Your task to perform on an android device: allow cookies in the chrome app Image 0: 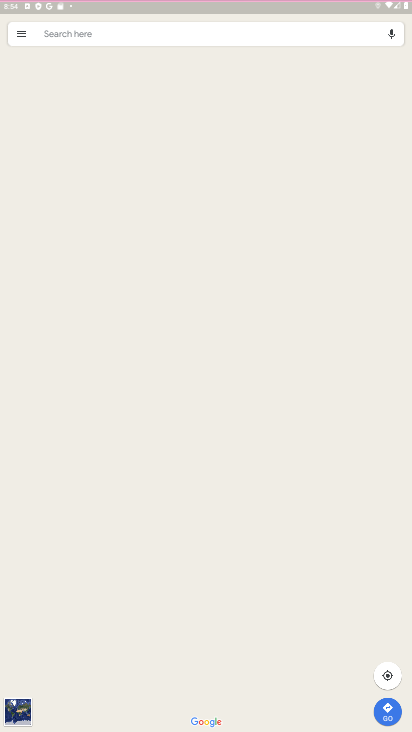
Step 0: press home button
Your task to perform on an android device: allow cookies in the chrome app Image 1: 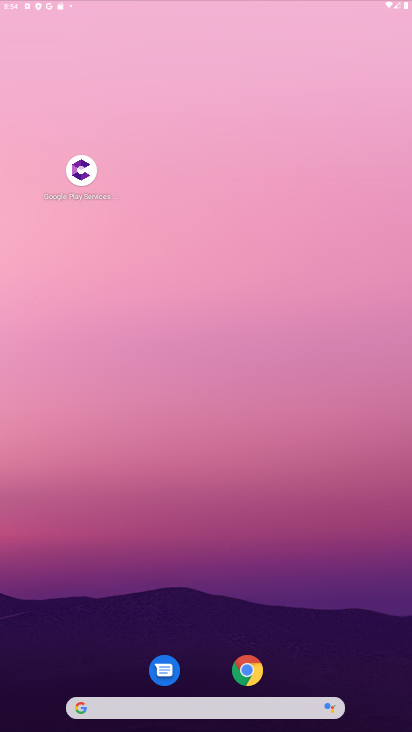
Step 1: press home button
Your task to perform on an android device: allow cookies in the chrome app Image 2: 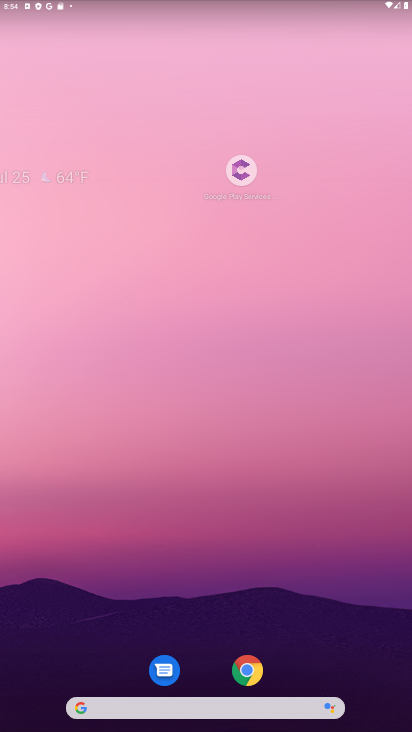
Step 2: drag from (340, 704) to (203, 2)
Your task to perform on an android device: allow cookies in the chrome app Image 3: 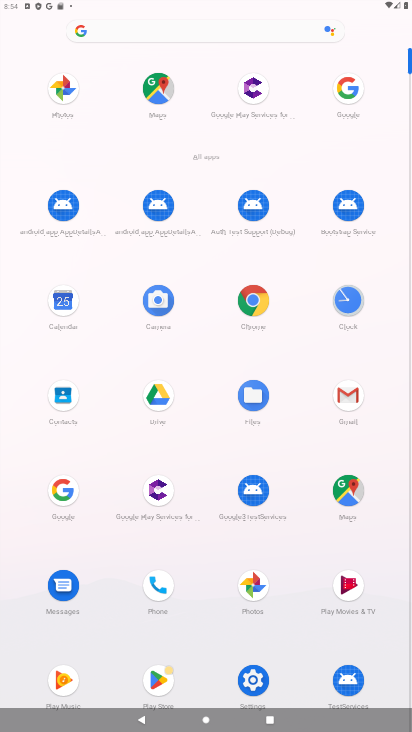
Step 3: click (244, 308)
Your task to perform on an android device: allow cookies in the chrome app Image 4: 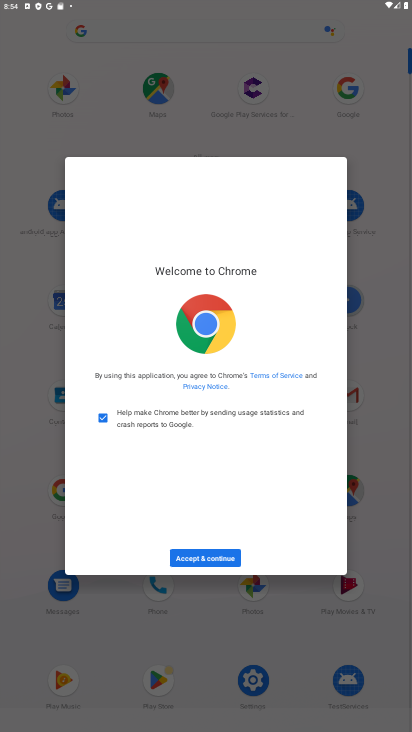
Step 4: click (204, 557)
Your task to perform on an android device: allow cookies in the chrome app Image 5: 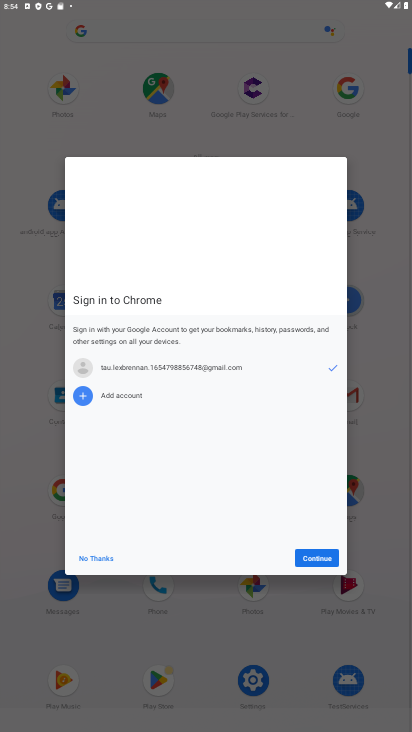
Step 5: click (315, 560)
Your task to perform on an android device: allow cookies in the chrome app Image 6: 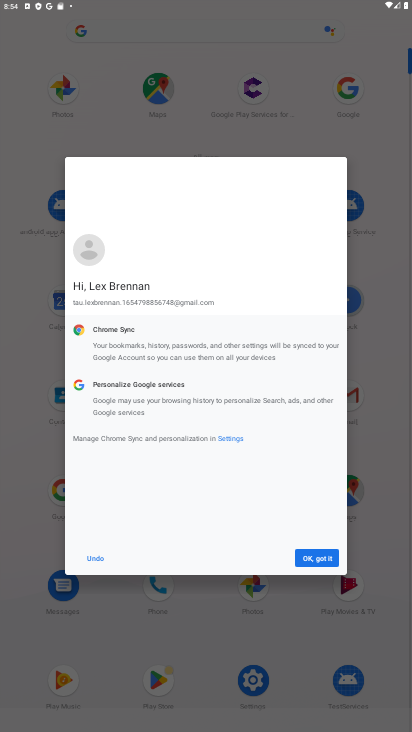
Step 6: click (316, 560)
Your task to perform on an android device: allow cookies in the chrome app Image 7: 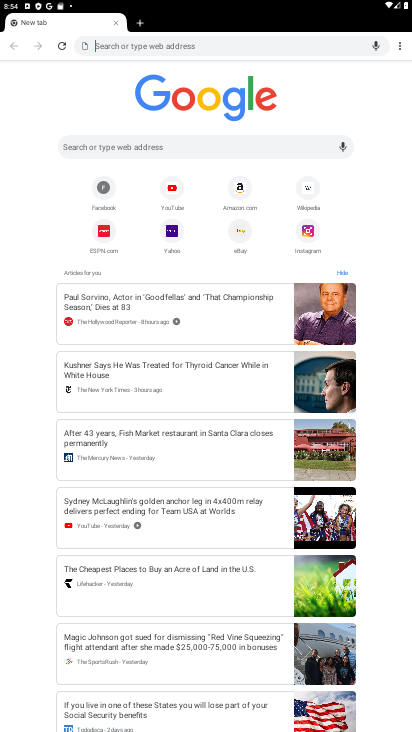
Step 7: click (400, 44)
Your task to perform on an android device: allow cookies in the chrome app Image 8: 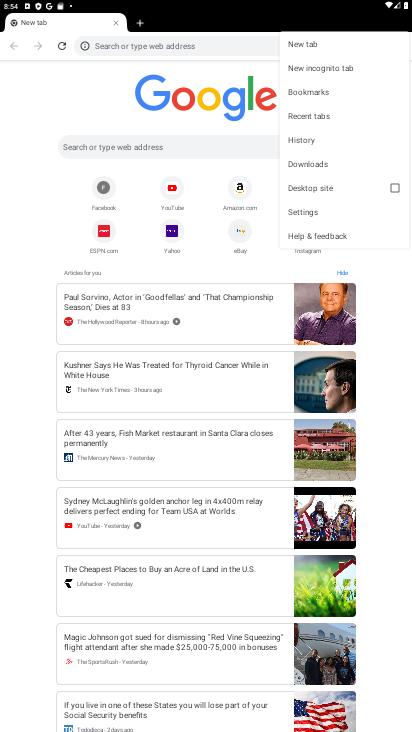
Step 8: click (303, 141)
Your task to perform on an android device: allow cookies in the chrome app Image 9: 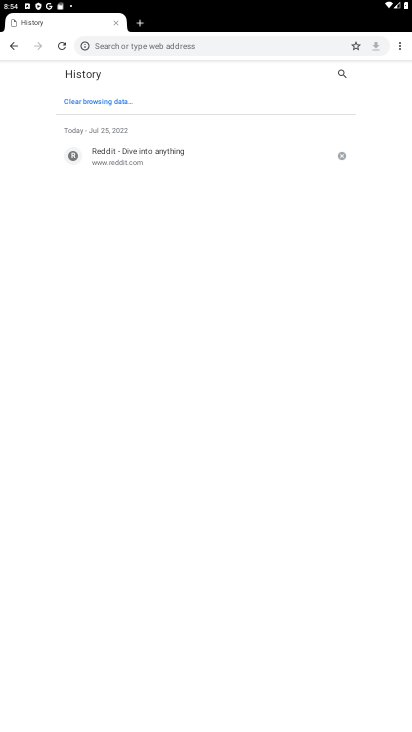
Step 9: click (102, 107)
Your task to perform on an android device: allow cookies in the chrome app Image 10: 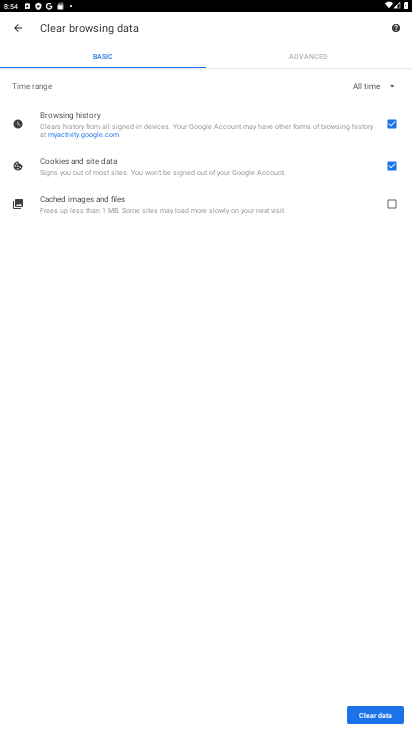
Step 10: task complete